Your task to perform on an android device: allow notifications from all sites in the chrome app Image 0: 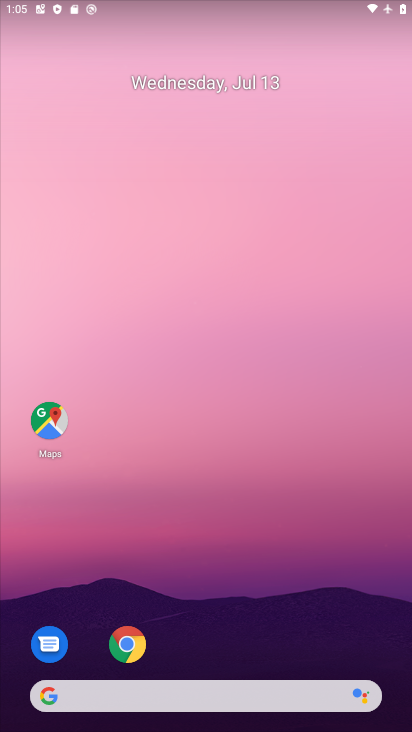
Step 0: drag from (297, 544) to (241, 49)
Your task to perform on an android device: allow notifications from all sites in the chrome app Image 1: 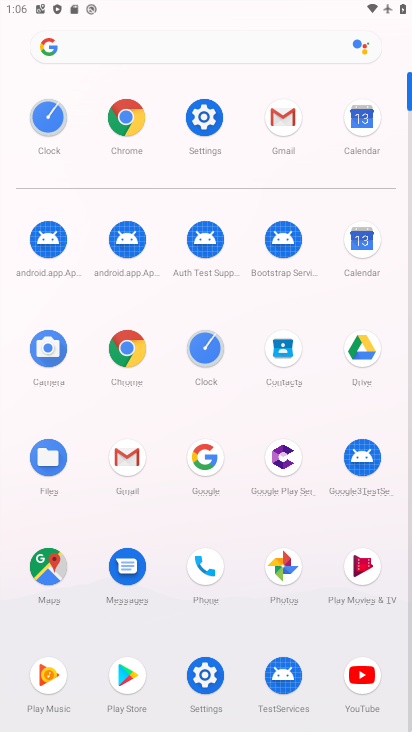
Step 1: click (126, 346)
Your task to perform on an android device: allow notifications from all sites in the chrome app Image 2: 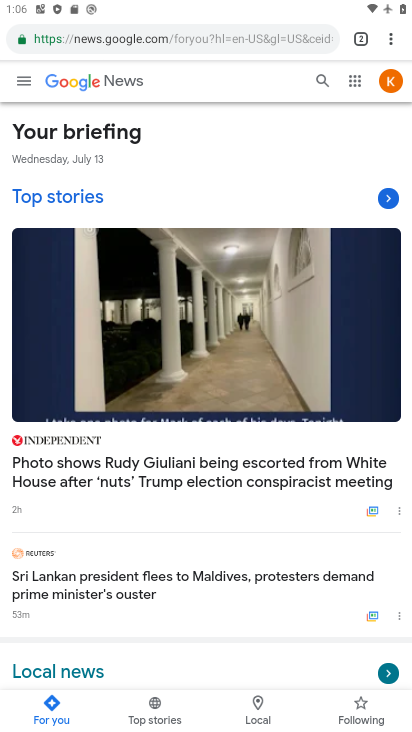
Step 2: drag from (393, 36) to (263, 465)
Your task to perform on an android device: allow notifications from all sites in the chrome app Image 3: 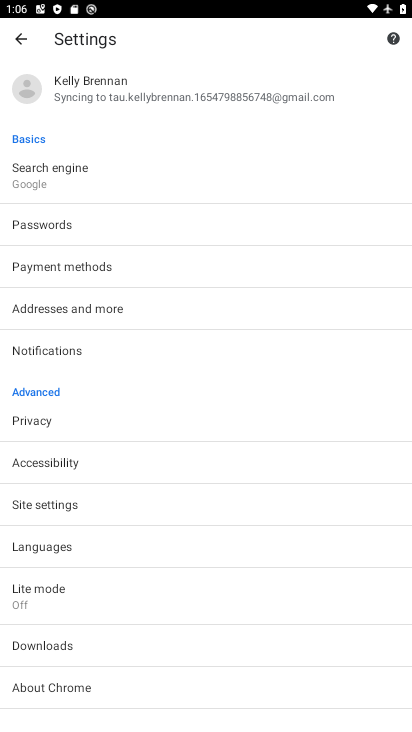
Step 3: click (62, 503)
Your task to perform on an android device: allow notifications from all sites in the chrome app Image 4: 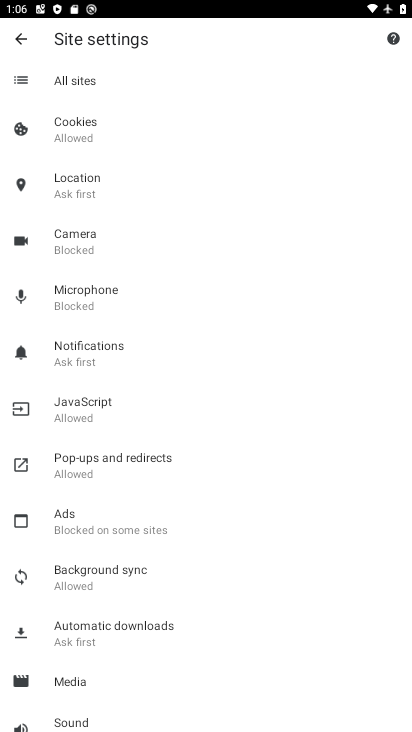
Step 4: click (86, 345)
Your task to perform on an android device: allow notifications from all sites in the chrome app Image 5: 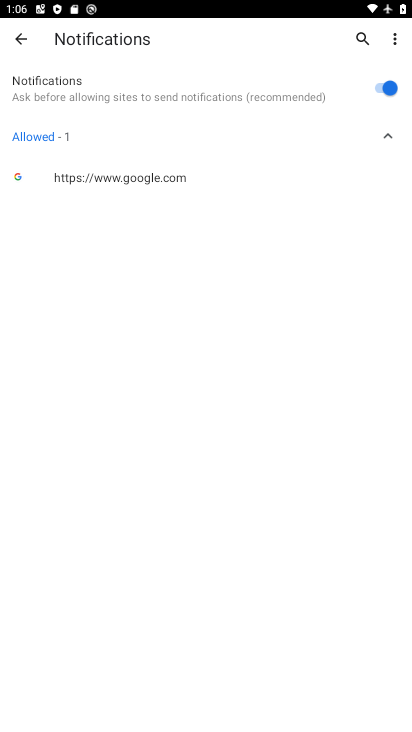
Step 5: task complete